Your task to perform on an android device: Empty the shopping cart on amazon.com. Add "asus zenbook" to the cart on amazon.com, then select checkout. Image 0: 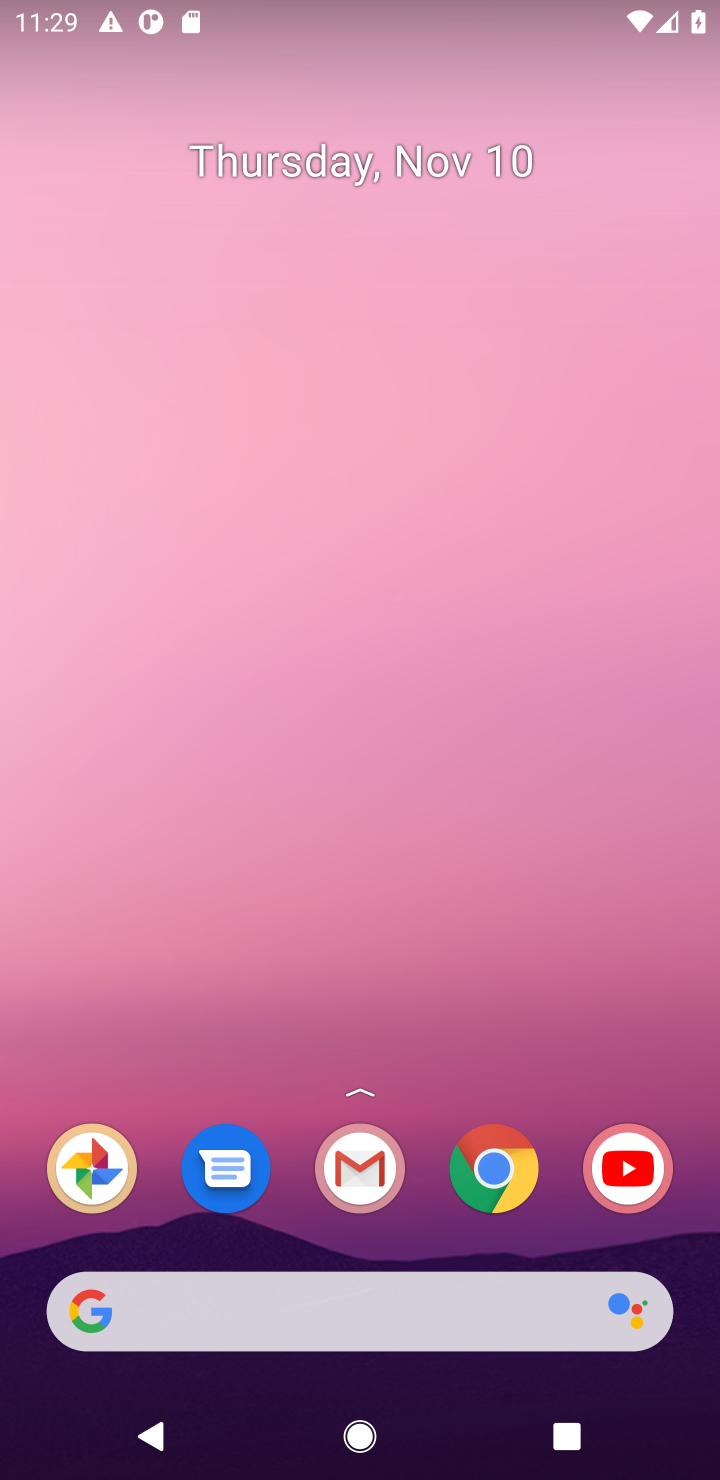
Step 0: click (490, 1197)
Your task to perform on an android device: Empty the shopping cart on amazon.com. Add "asus zenbook" to the cart on amazon.com, then select checkout. Image 1: 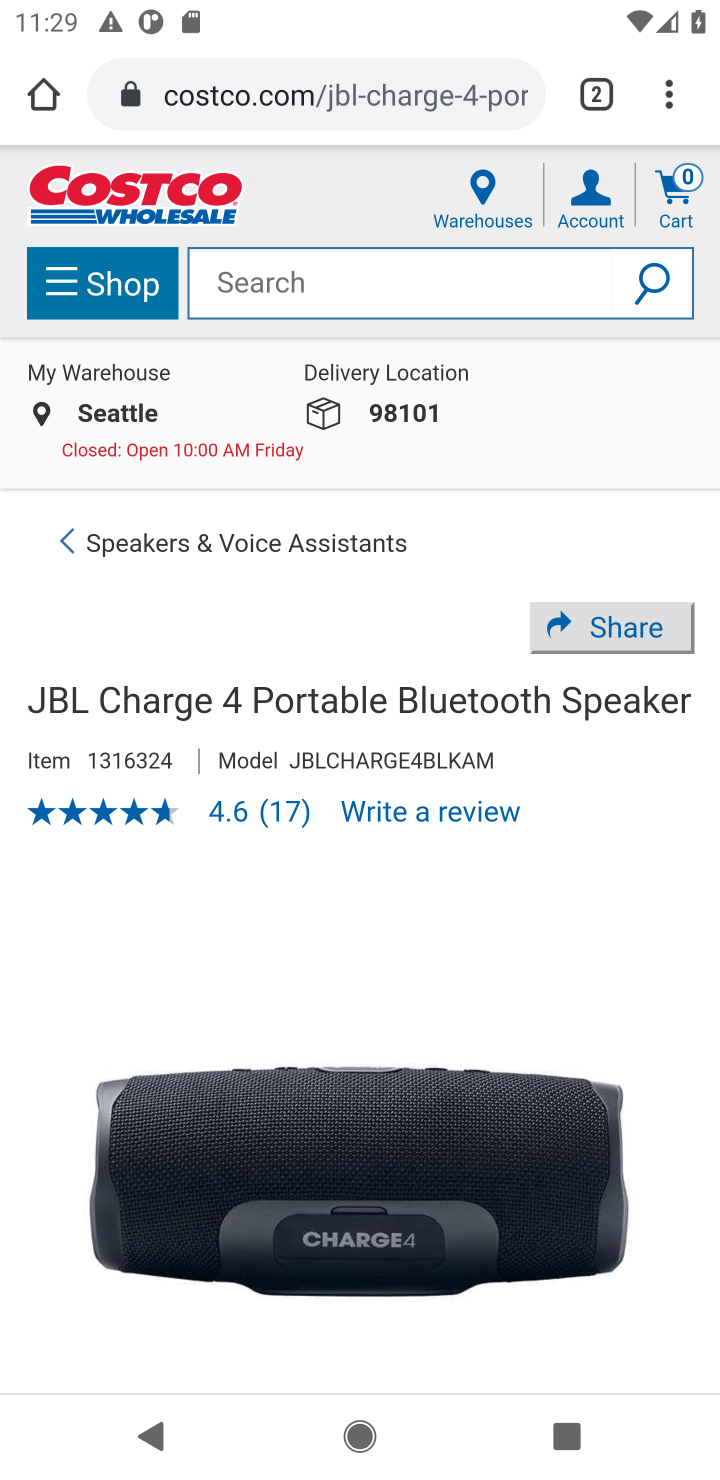
Step 1: click (273, 96)
Your task to perform on an android device: Empty the shopping cart on amazon.com. Add "asus zenbook" to the cart on amazon.com, then select checkout. Image 2: 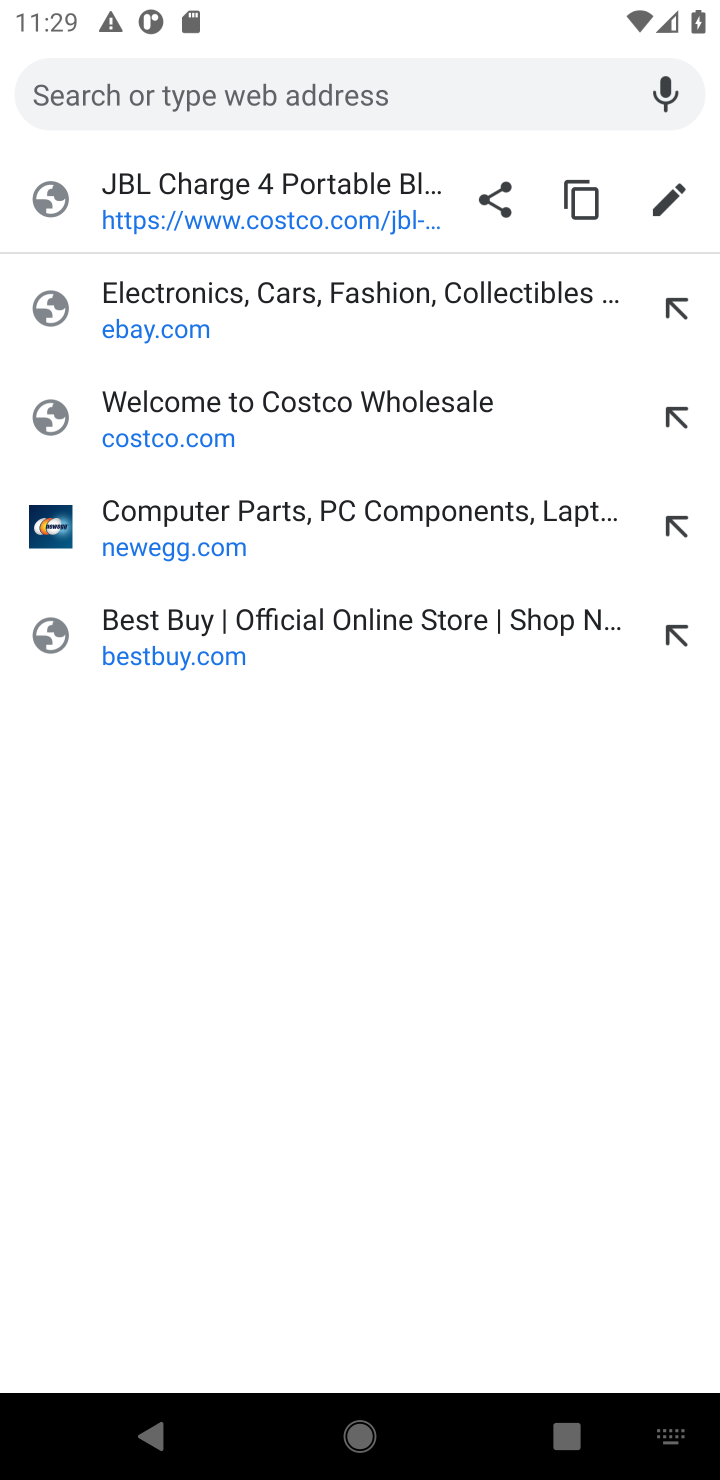
Step 2: type "amazon.com"
Your task to perform on an android device: Empty the shopping cart on amazon.com. Add "asus zenbook" to the cart on amazon.com, then select checkout. Image 3: 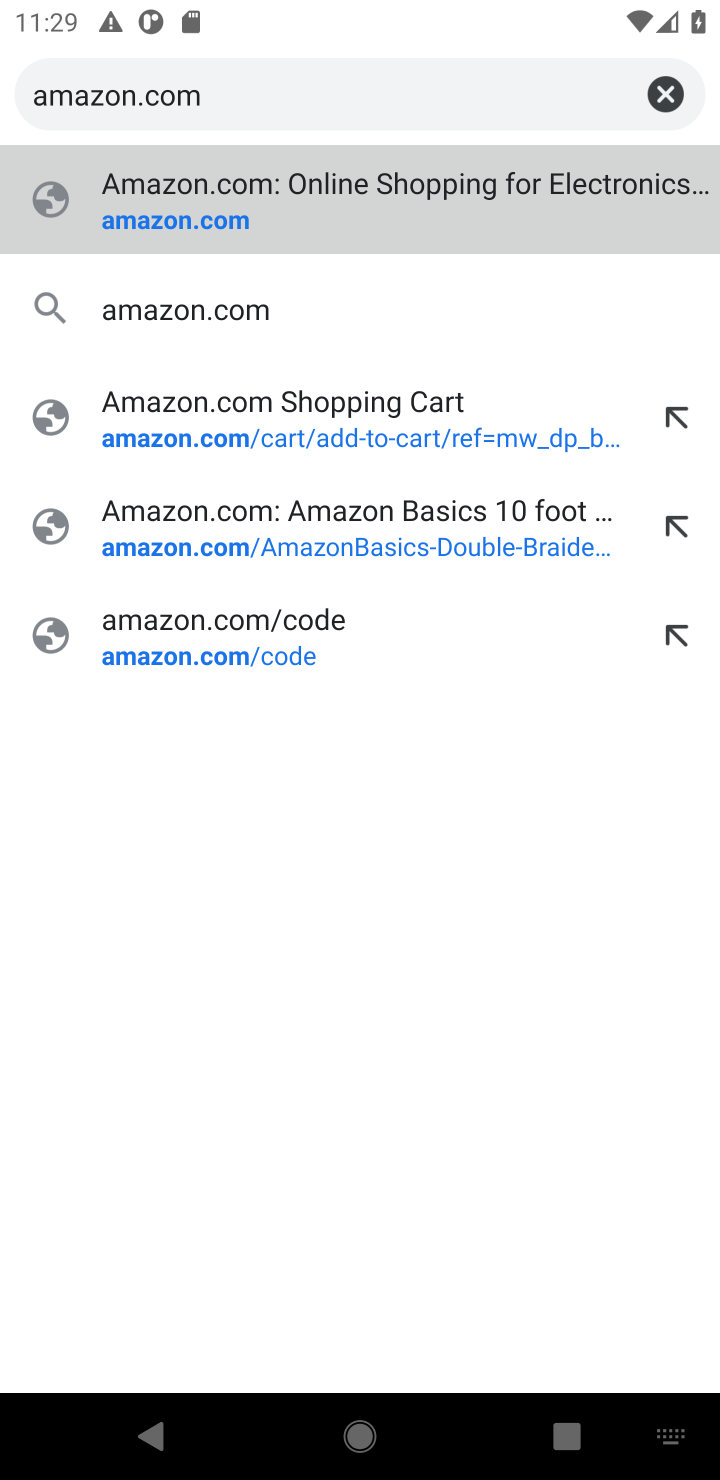
Step 3: click (145, 213)
Your task to perform on an android device: Empty the shopping cart on amazon.com. Add "asus zenbook" to the cart on amazon.com, then select checkout. Image 4: 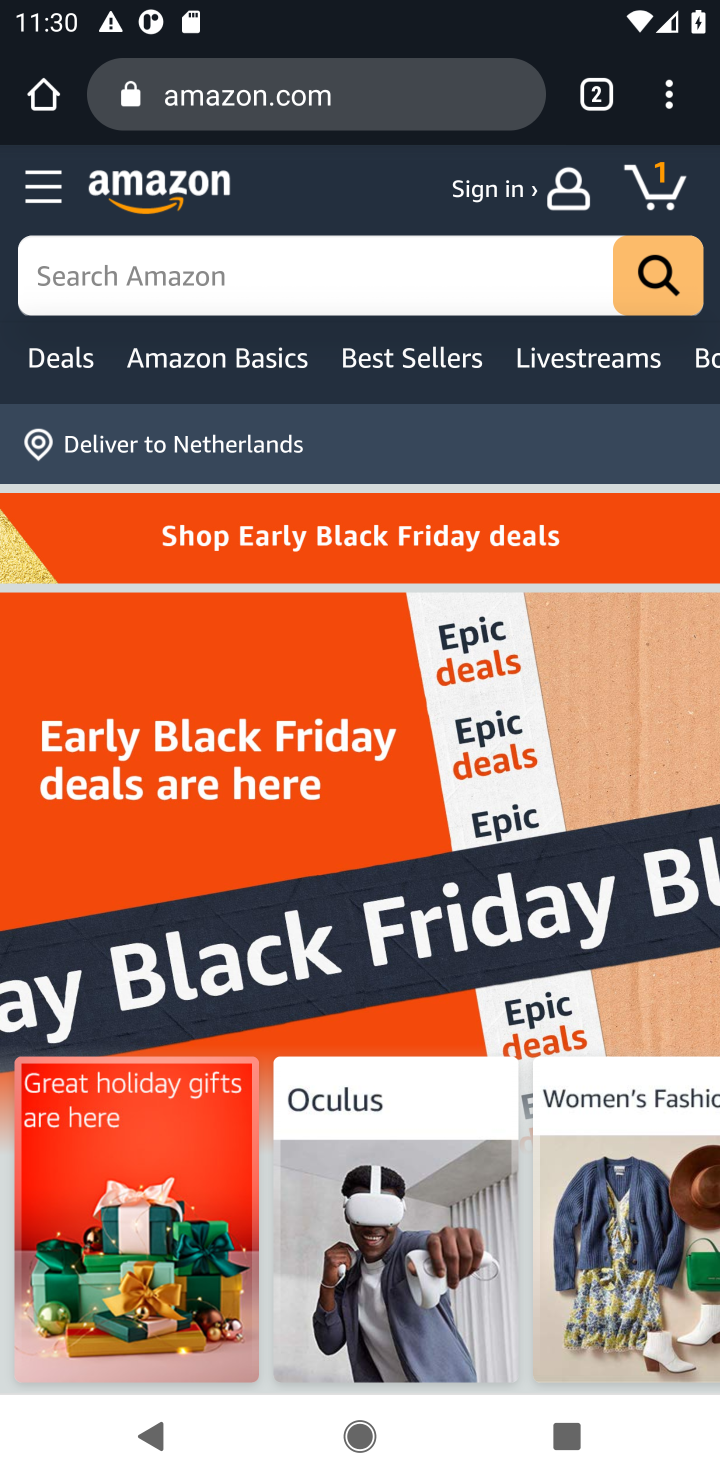
Step 4: click (650, 190)
Your task to perform on an android device: Empty the shopping cart on amazon.com. Add "asus zenbook" to the cart on amazon.com, then select checkout. Image 5: 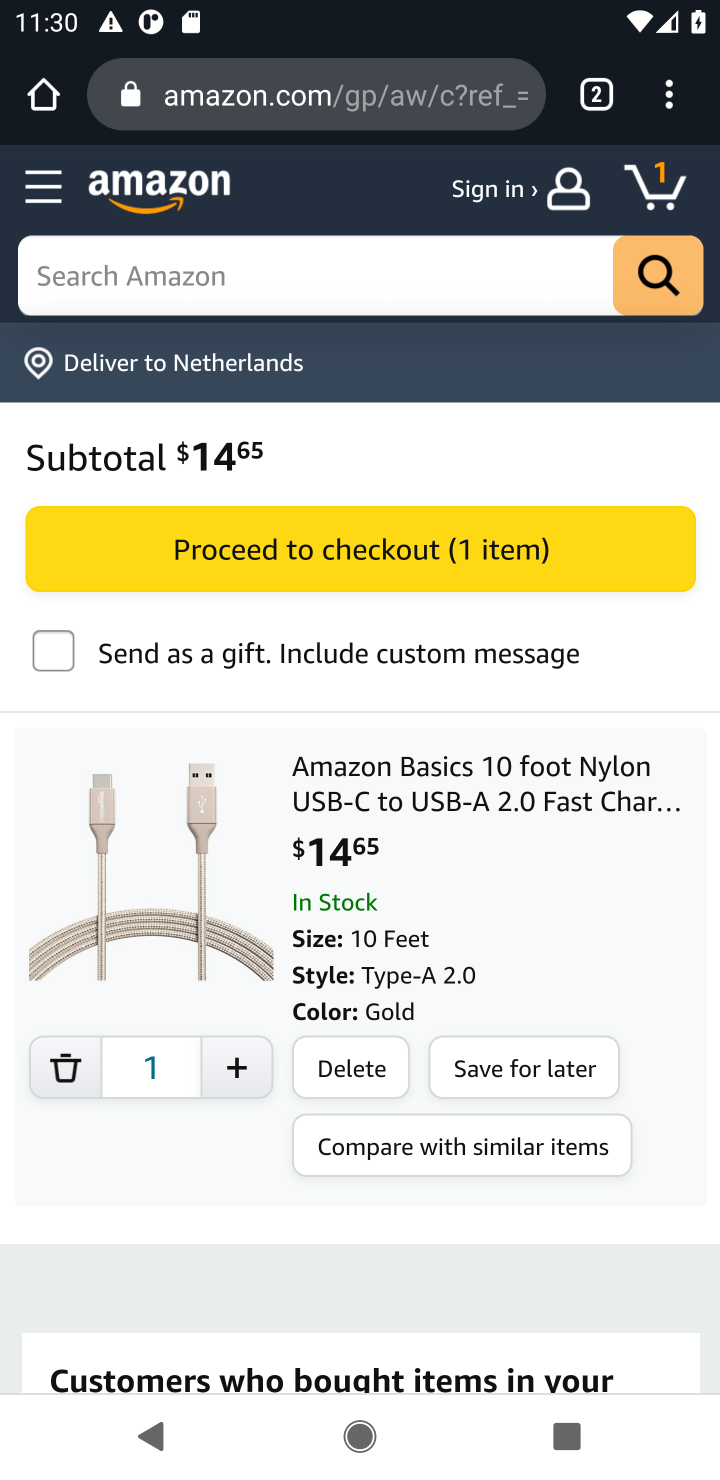
Step 5: click (337, 1056)
Your task to perform on an android device: Empty the shopping cart on amazon.com. Add "asus zenbook" to the cart on amazon.com, then select checkout. Image 6: 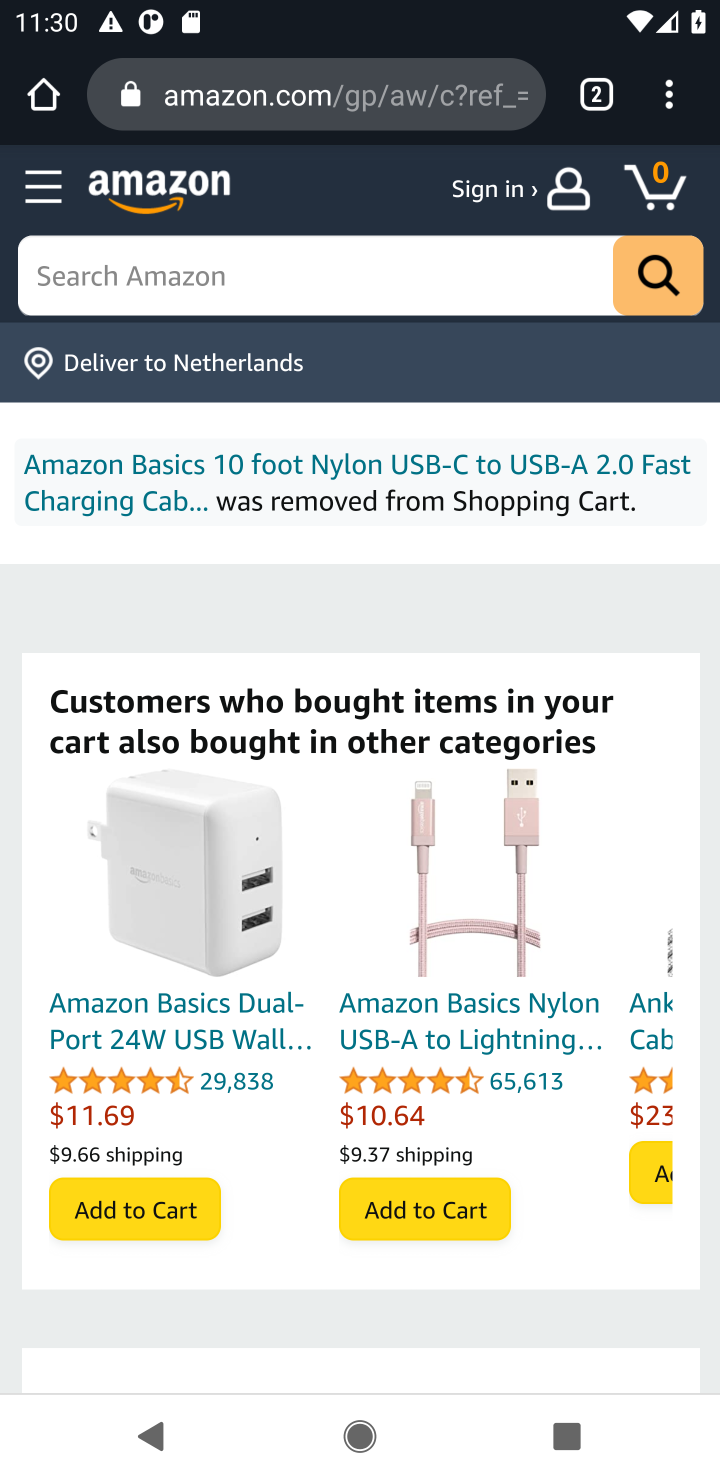
Step 6: click (181, 273)
Your task to perform on an android device: Empty the shopping cart on amazon.com. Add "asus zenbook" to the cart on amazon.com, then select checkout. Image 7: 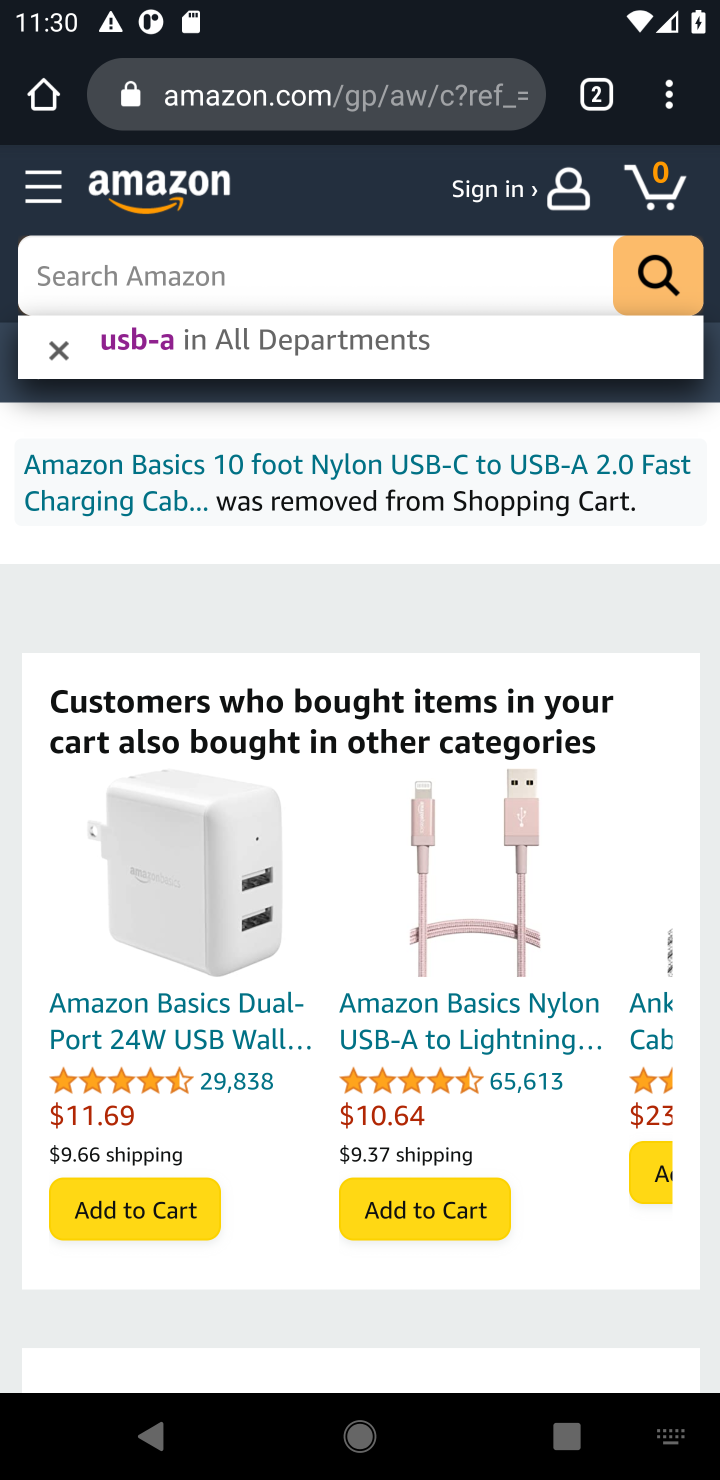
Step 7: type "asus zenbook"
Your task to perform on an android device: Empty the shopping cart on amazon.com. Add "asus zenbook" to the cart on amazon.com, then select checkout. Image 8: 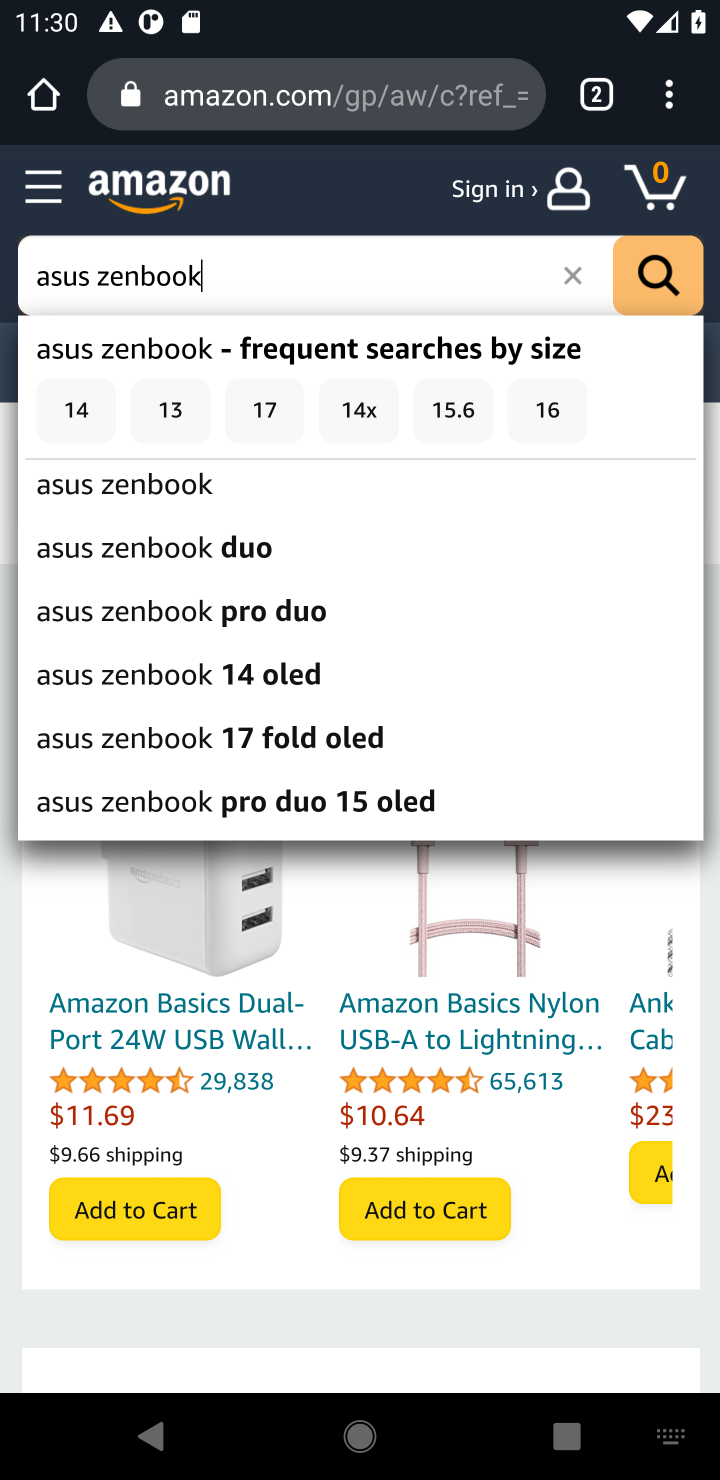
Step 8: click (146, 497)
Your task to perform on an android device: Empty the shopping cart on amazon.com. Add "asus zenbook" to the cart on amazon.com, then select checkout. Image 9: 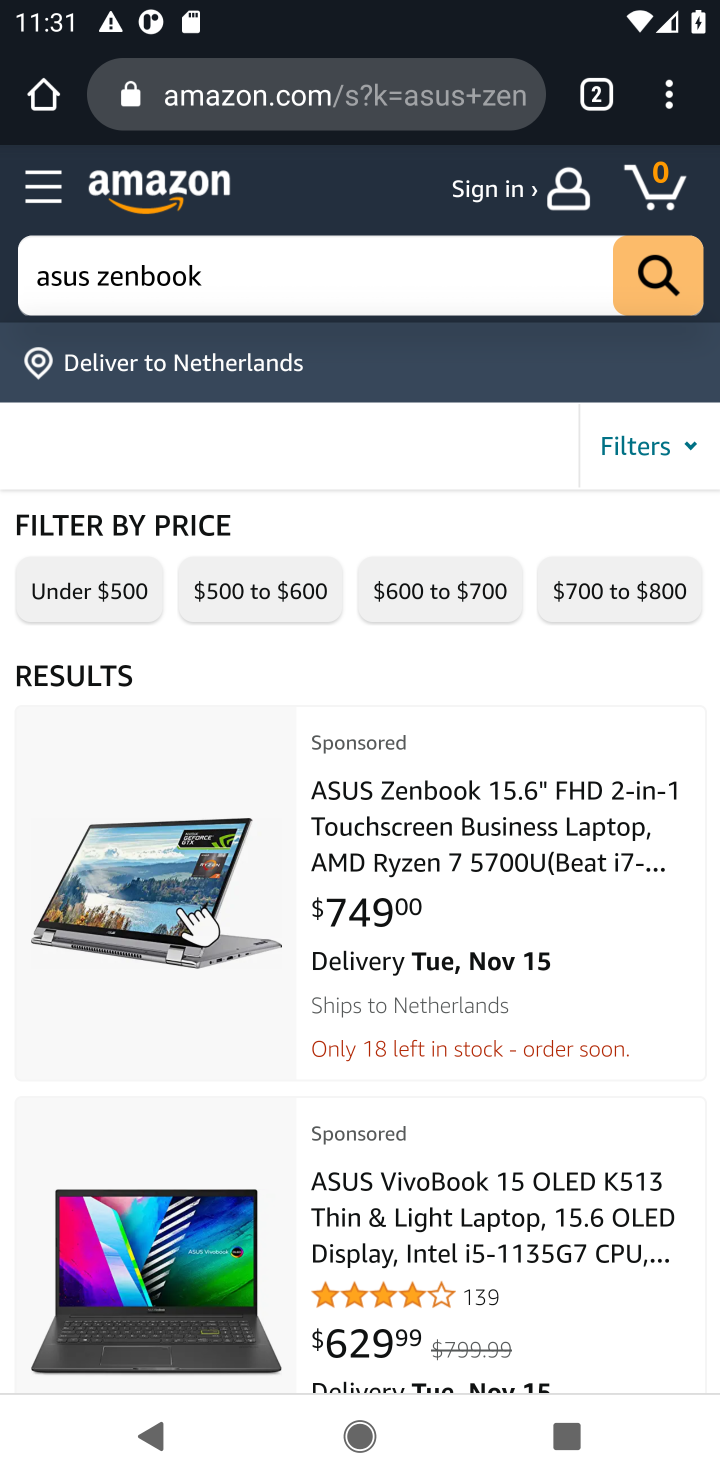
Step 9: click (123, 898)
Your task to perform on an android device: Empty the shopping cart on amazon.com. Add "asus zenbook" to the cart on amazon.com, then select checkout. Image 10: 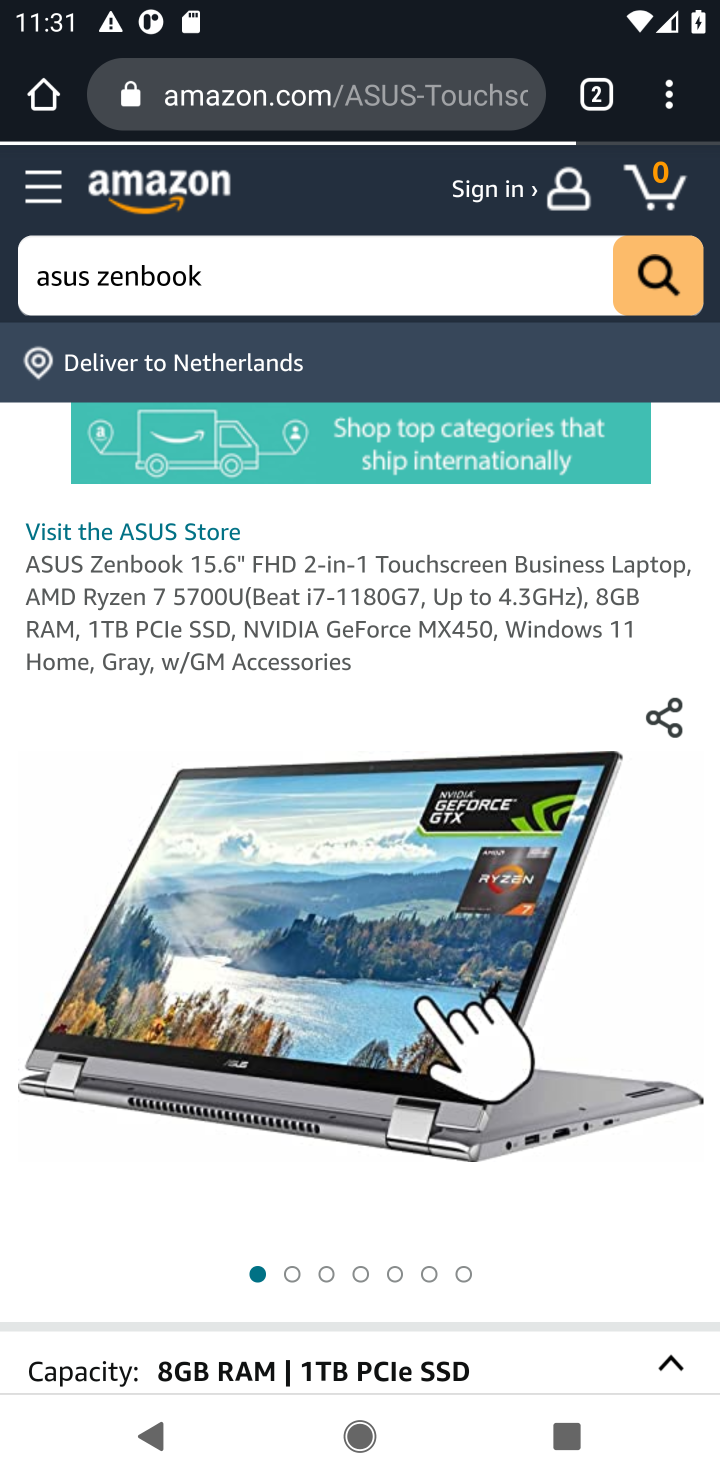
Step 10: drag from (284, 1024) to (301, 470)
Your task to perform on an android device: Empty the shopping cart on amazon.com. Add "asus zenbook" to the cart on amazon.com, then select checkout. Image 11: 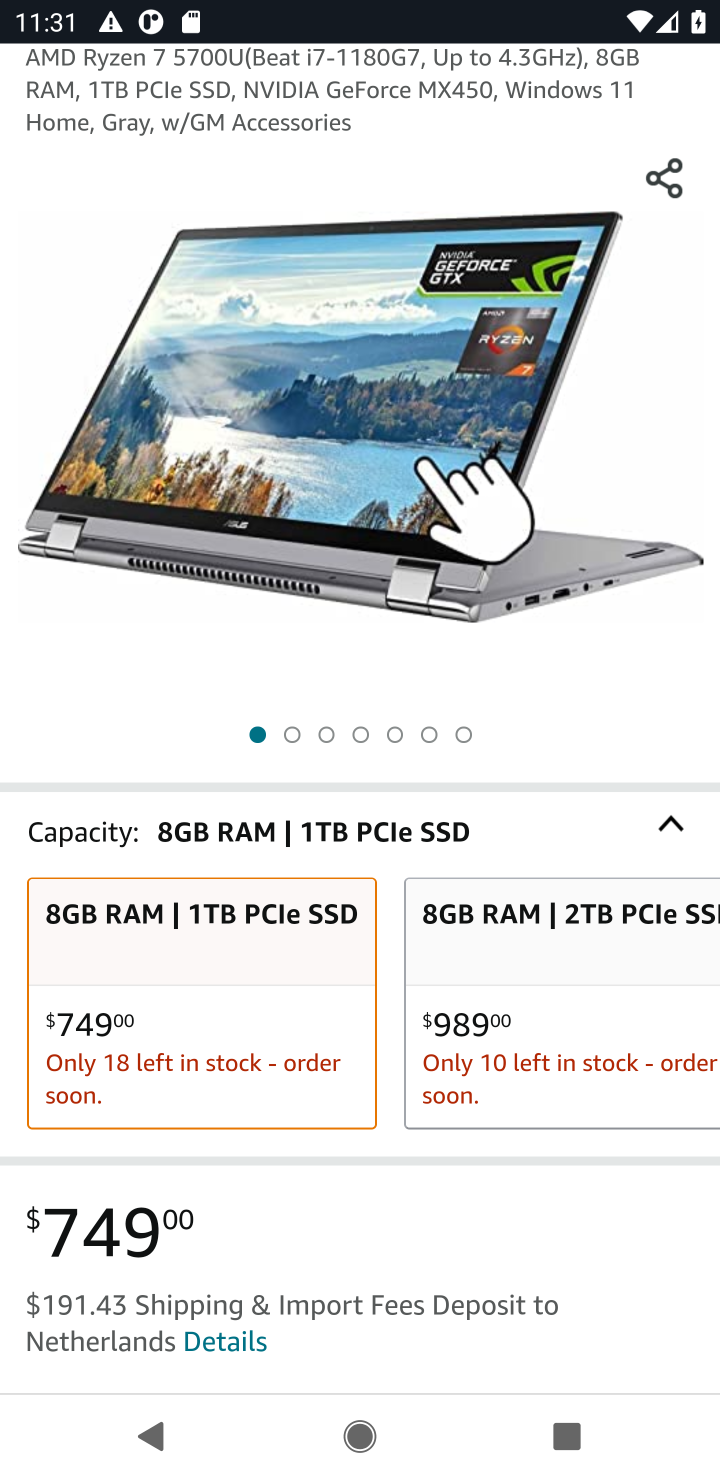
Step 11: drag from (305, 910) to (320, 403)
Your task to perform on an android device: Empty the shopping cart on amazon.com. Add "asus zenbook" to the cart on amazon.com, then select checkout. Image 12: 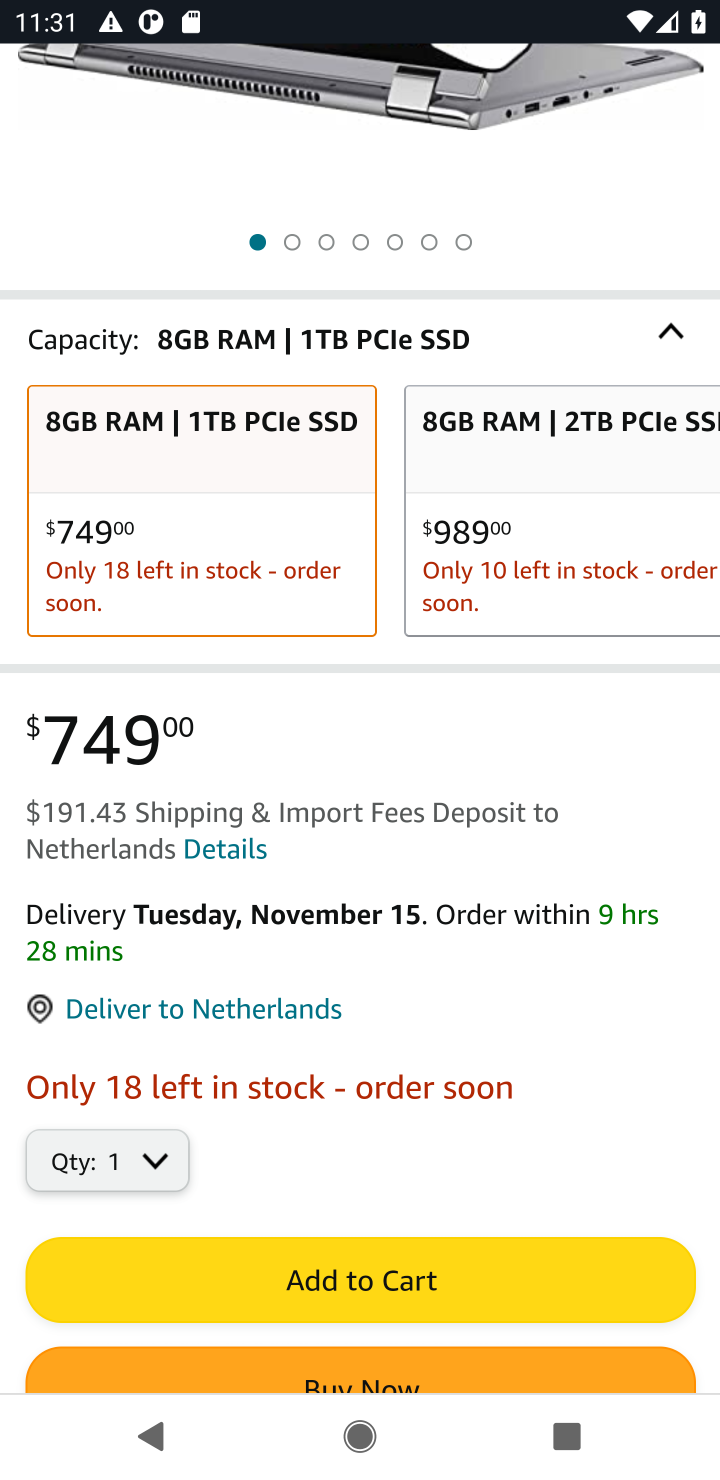
Step 12: drag from (316, 1010) to (314, 573)
Your task to perform on an android device: Empty the shopping cart on amazon.com. Add "asus zenbook" to the cart on amazon.com, then select checkout. Image 13: 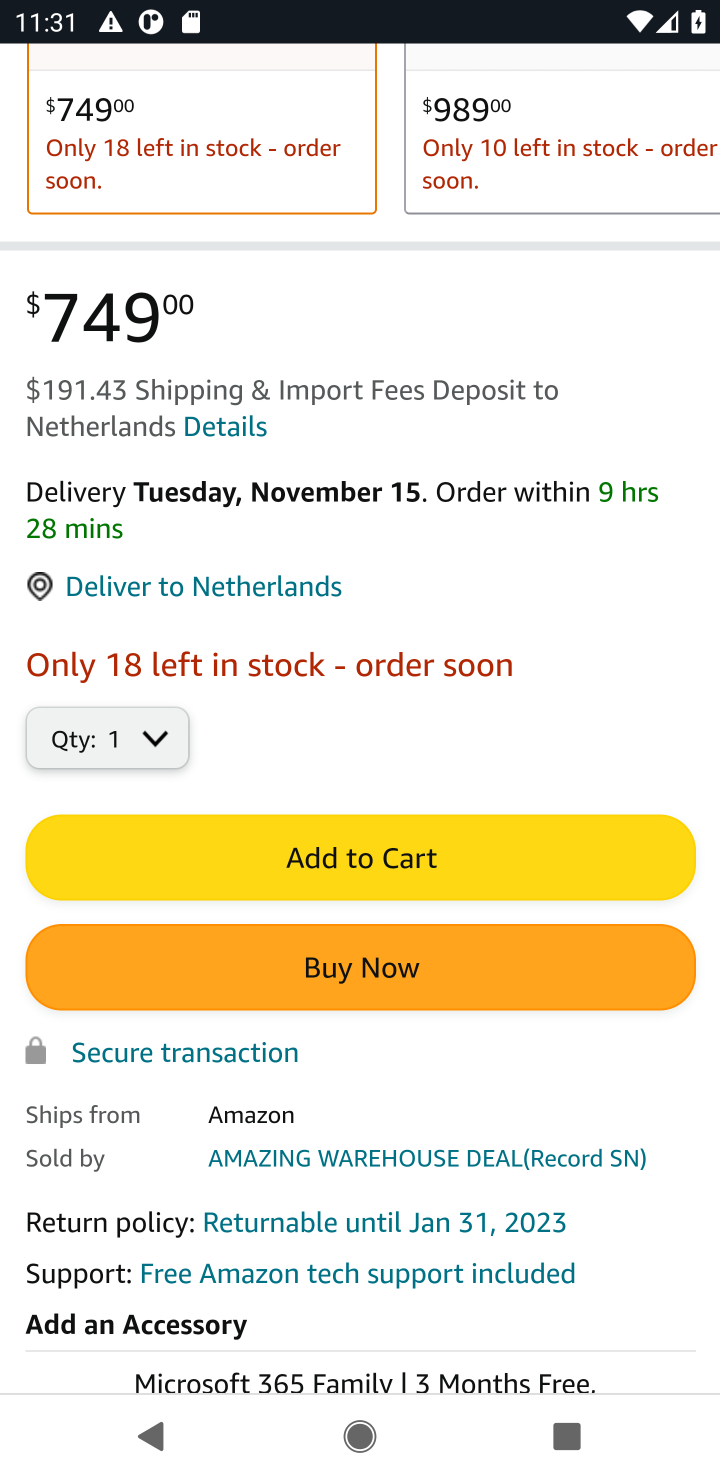
Step 13: click (308, 843)
Your task to perform on an android device: Empty the shopping cart on amazon.com. Add "asus zenbook" to the cart on amazon.com, then select checkout. Image 14: 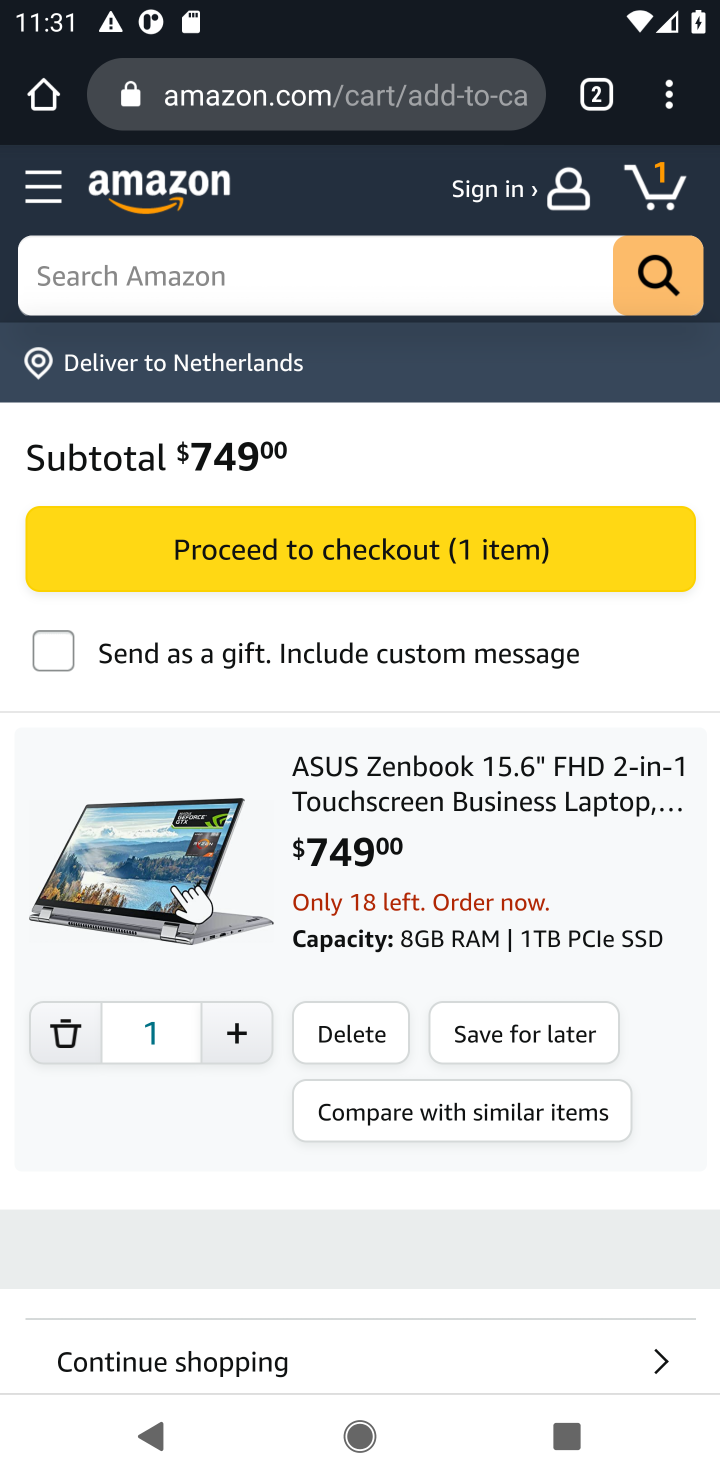
Step 14: click (324, 533)
Your task to perform on an android device: Empty the shopping cart on amazon.com. Add "asus zenbook" to the cart on amazon.com, then select checkout. Image 15: 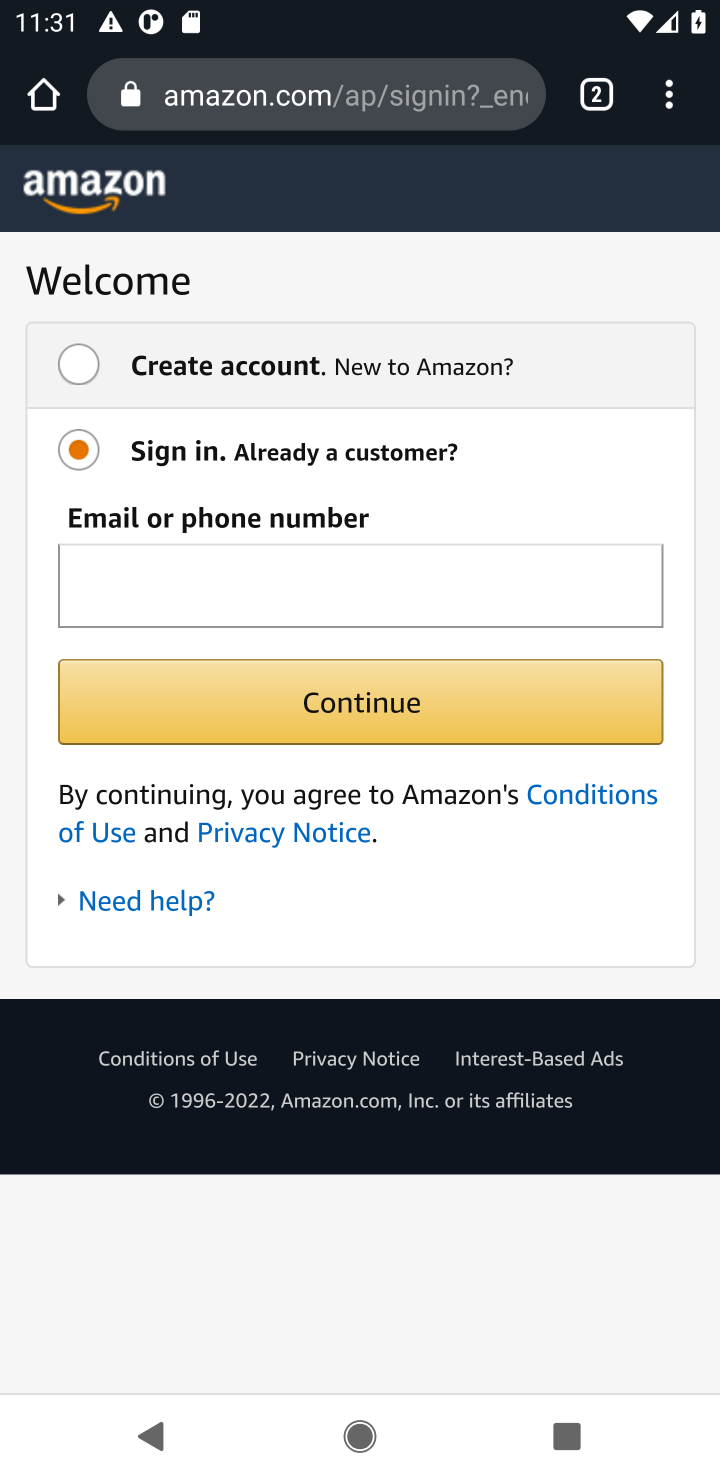
Step 15: task complete